Your task to perform on an android device: change text size in settings app Image 0: 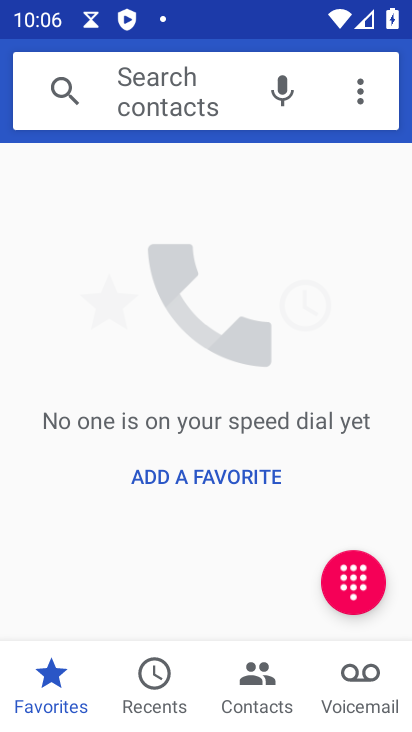
Step 0: press home button
Your task to perform on an android device: change text size in settings app Image 1: 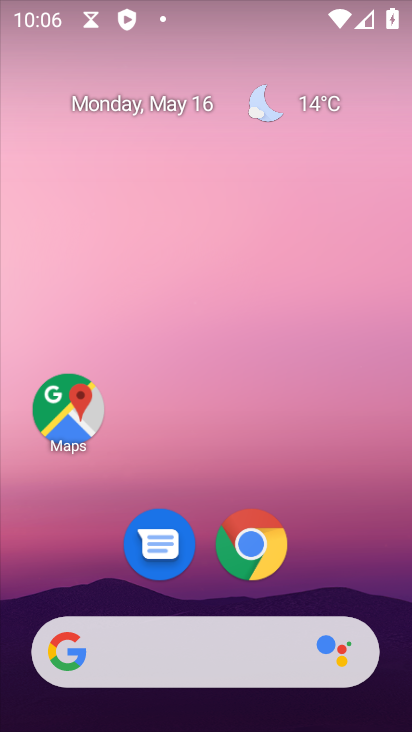
Step 1: drag from (335, 534) to (379, 158)
Your task to perform on an android device: change text size in settings app Image 2: 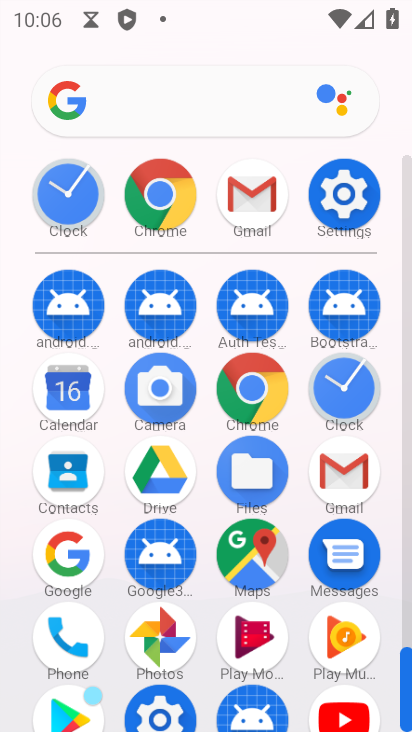
Step 2: click (331, 210)
Your task to perform on an android device: change text size in settings app Image 3: 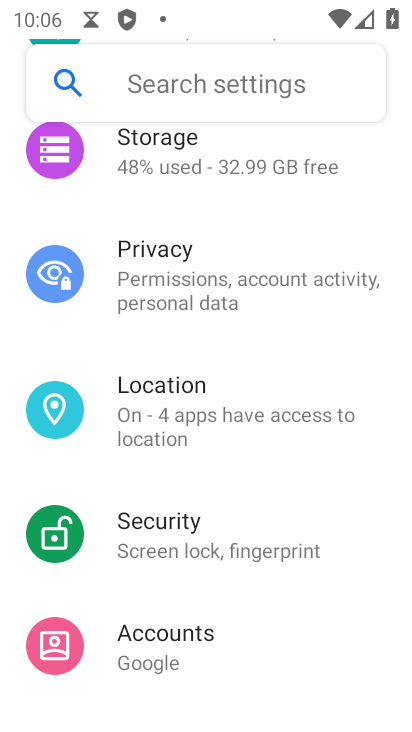
Step 3: drag from (281, 256) to (277, 676)
Your task to perform on an android device: change text size in settings app Image 4: 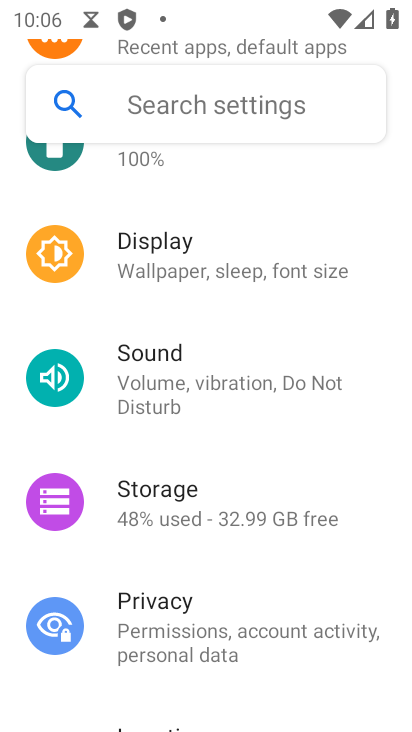
Step 4: click (252, 271)
Your task to perform on an android device: change text size in settings app Image 5: 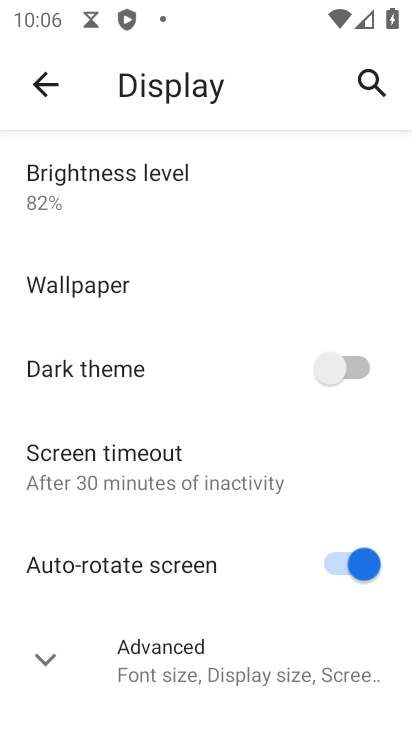
Step 5: click (35, 664)
Your task to perform on an android device: change text size in settings app Image 6: 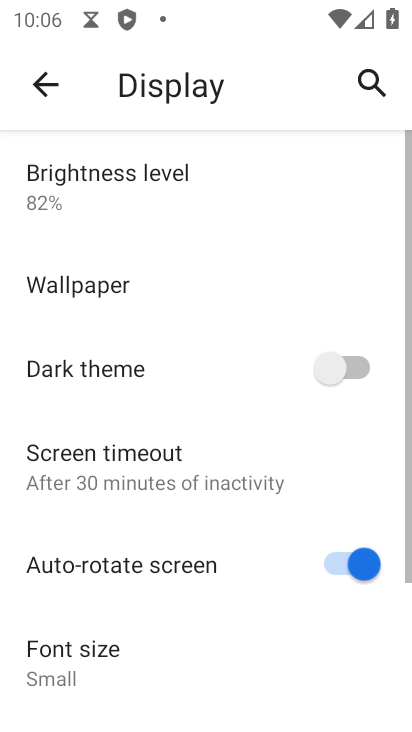
Step 6: drag from (175, 668) to (215, 356)
Your task to perform on an android device: change text size in settings app Image 7: 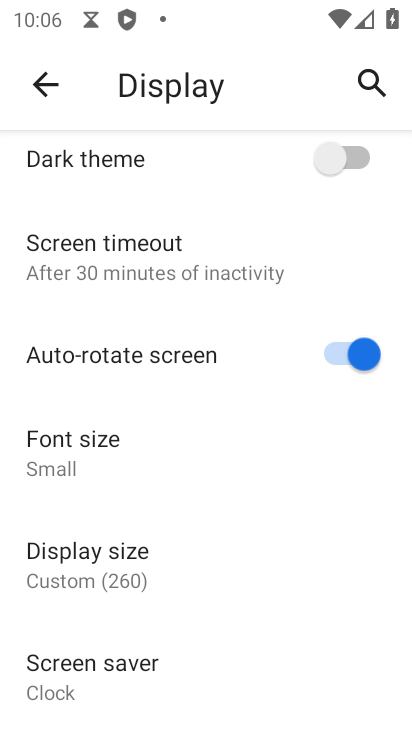
Step 7: click (128, 451)
Your task to perform on an android device: change text size in settings app Image 8: 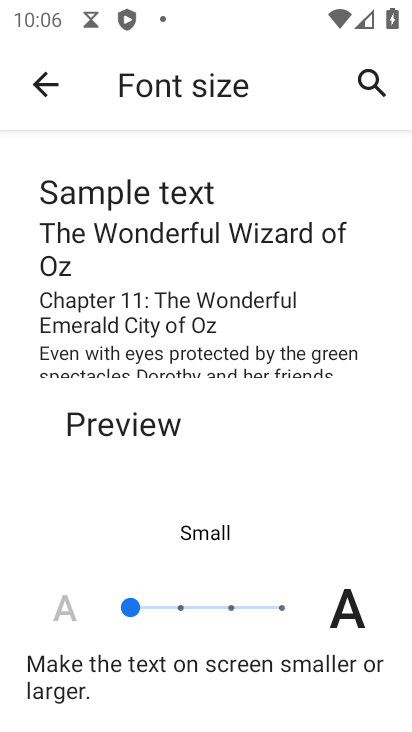
Step 8: click (169, 606)
Your task to perform on an android device: change text size in settings app Image 9: 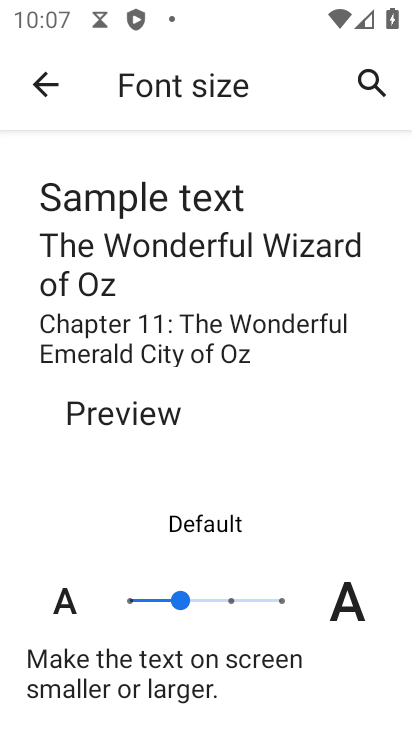
Step 9: task complete